Your task to perform on an android device: manage bookmarks in the chrome app Image 0: 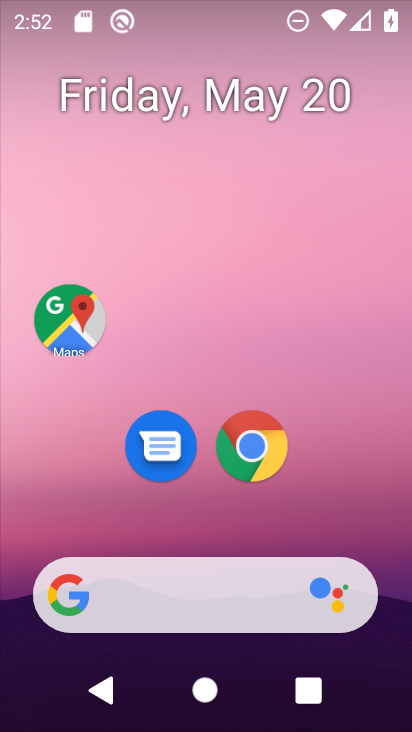
Step 0: click (260, 447)
Your task to perform on an android device: manage bookmarks in the chrome app Image 1: 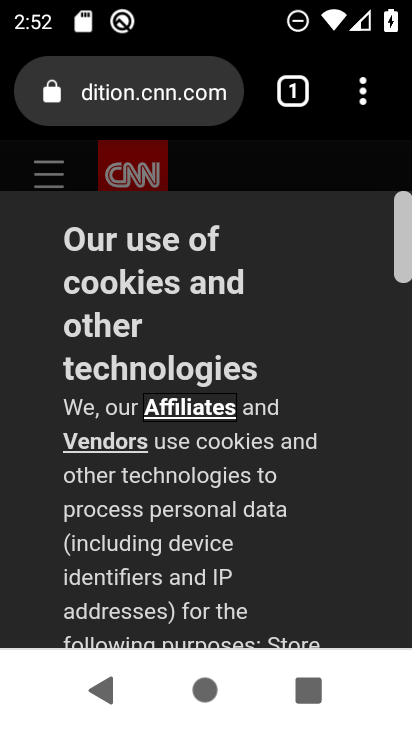
Step 1: click (367, 98)
Your task to perform on an android device: manage bookmarks in the chrome app Image 2: 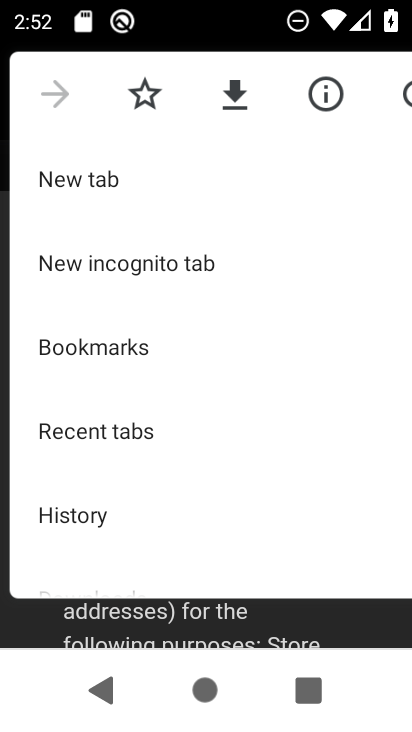
Step 2: click (140, 350)
Your task to perform on an android device: manage bookmarks in the chrome app Image 3: 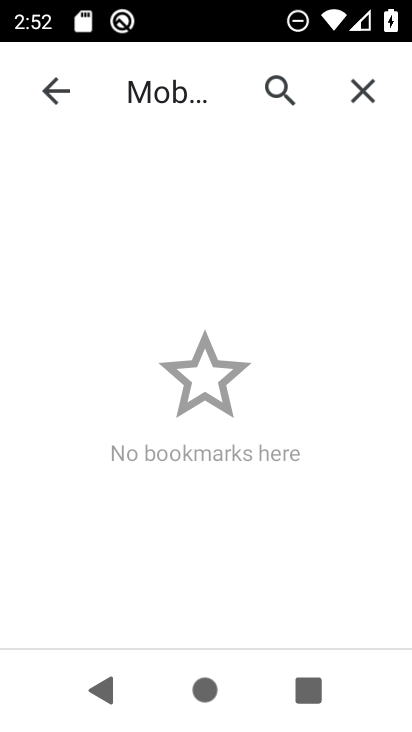
Step 3: task complete